Your task to perform on an android device: Go to Android settings Image 0: 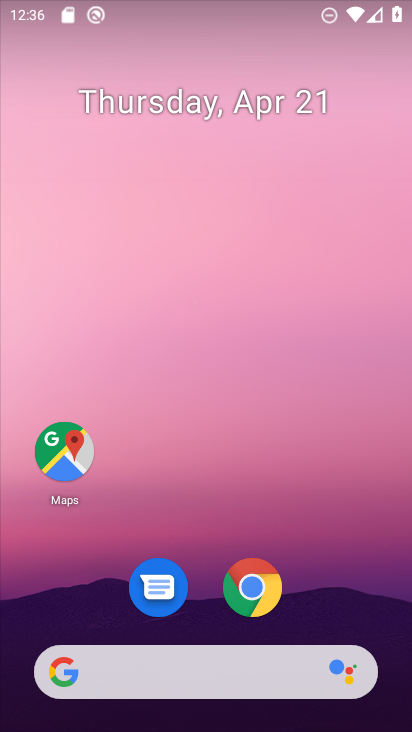
Step 0: drag from (321, 605) to (266, 5)
Your task to perform on an android device: Go to Android settings Image 1: 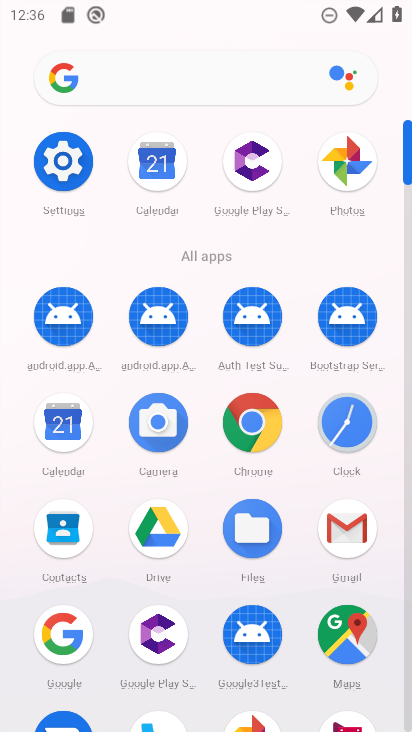
Step 1: click (61, 155)
Your task to perform on an android device: Go to Android settings Image 2: 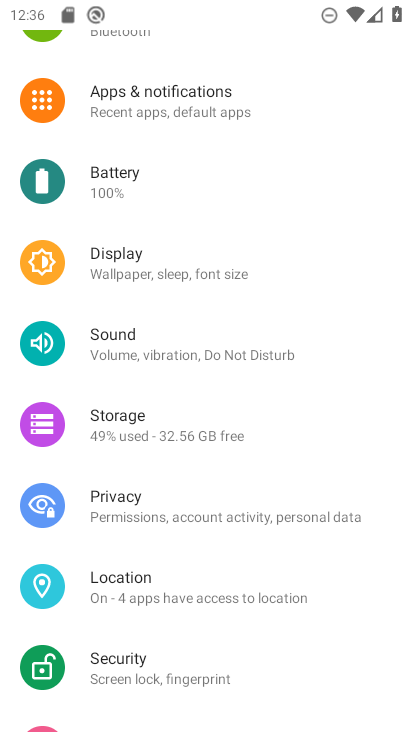
Step 2: drag from (242, 634) to (210, 189)
Your task to perform on an android device: Go to Android settings Image 3: 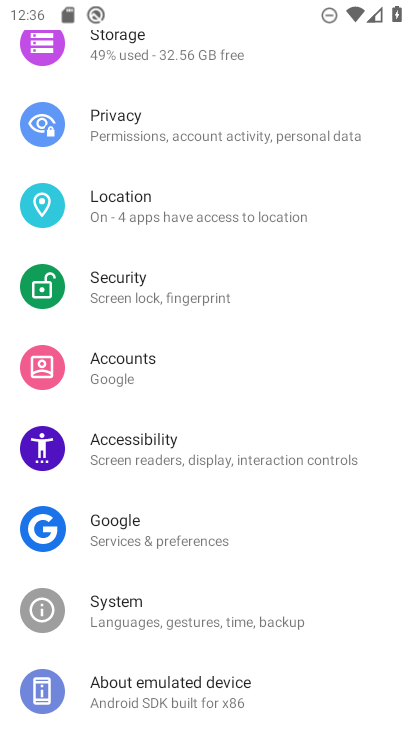
Step 3: drag from (181, 637) to (165, 261)
Your task to perform on an android device: Go to Android settings Image 4: 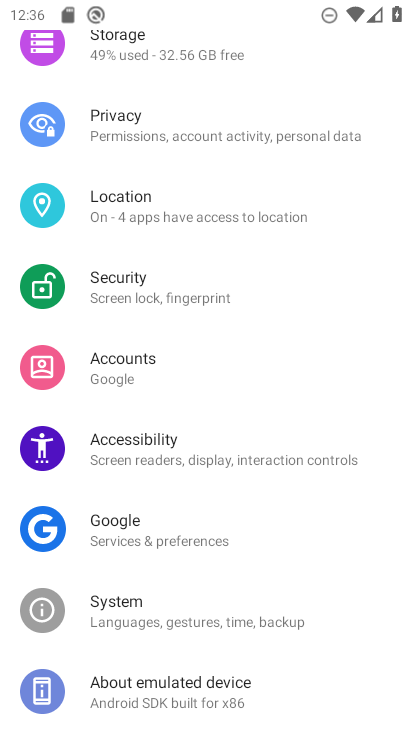
Step 4: click (177, 674)
Your task to perform on an android device: Go to Android settings Image 5: 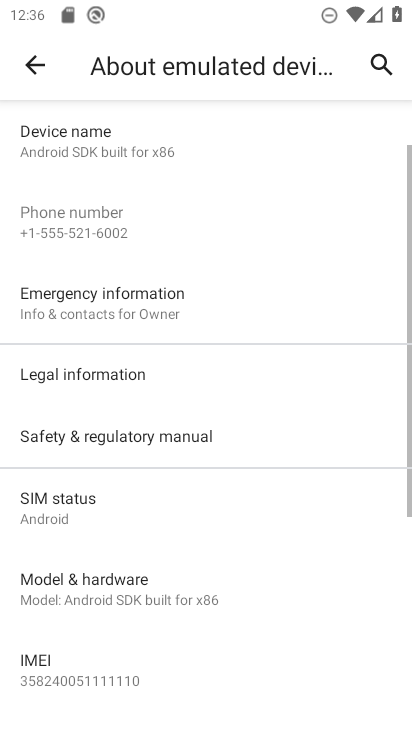
Step 5: drag from (238, 623) to (230, 204)
Your task to perform on an android device: Go to Android settings Image 6: 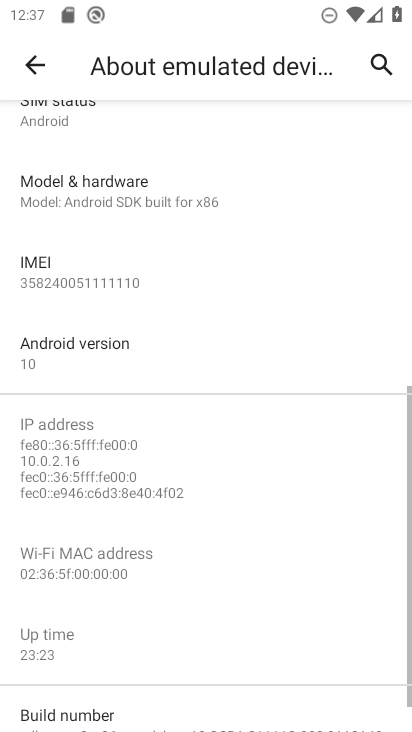
Step 6: click (77, 343)
Your task to perform on an android device: Go to Android settings Image 7: 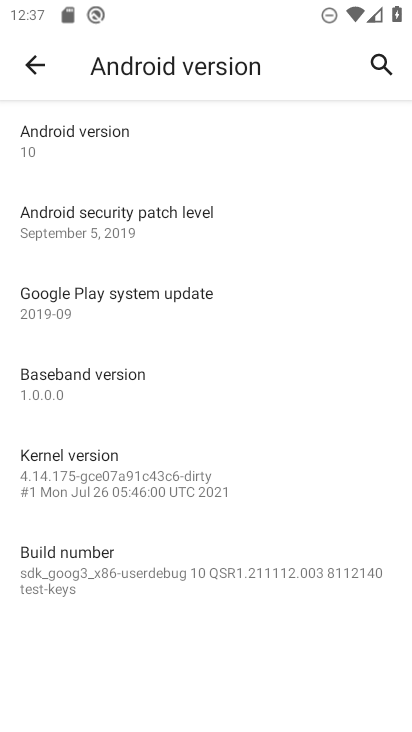
Step 7: task complete